Your task to perform on an android device: find snoozed emails in the gmail app Image 0: 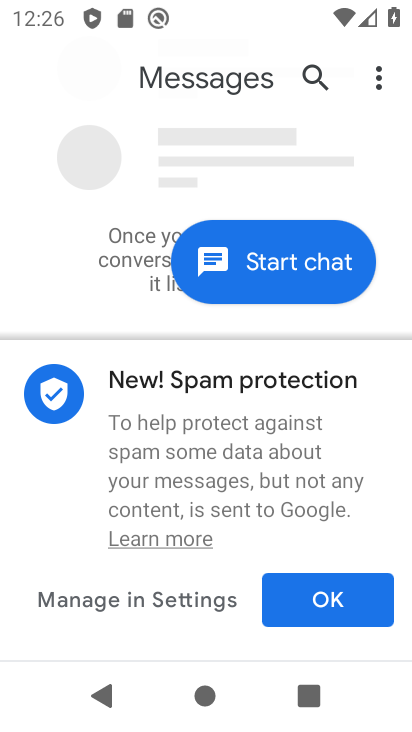
Step 0: press home button
Your task to perform on an android device: find snoozed emails in the gmail app Image 1: 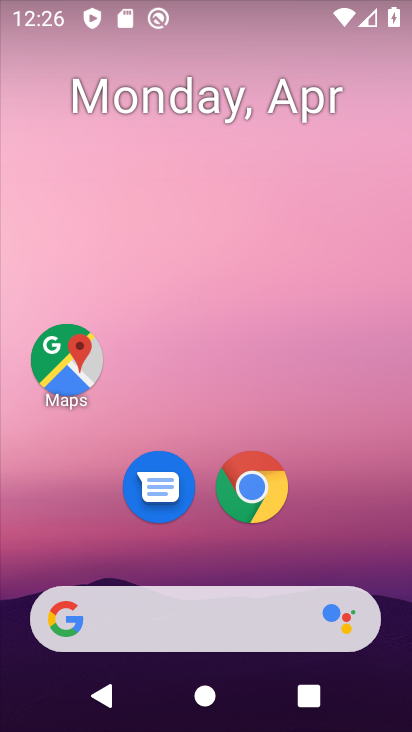
Step 1: drag from (395, 627) to (272, 89)
Your task to perform on an android device: find snoozed emails in the gmail app Image 2: 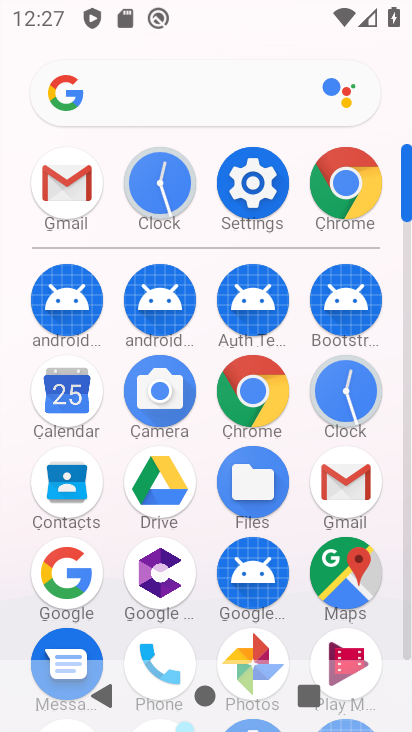
Step 2: click (340, 475)
Your task to perform on an android device: find snoozed emails in the gmail app Image 3: 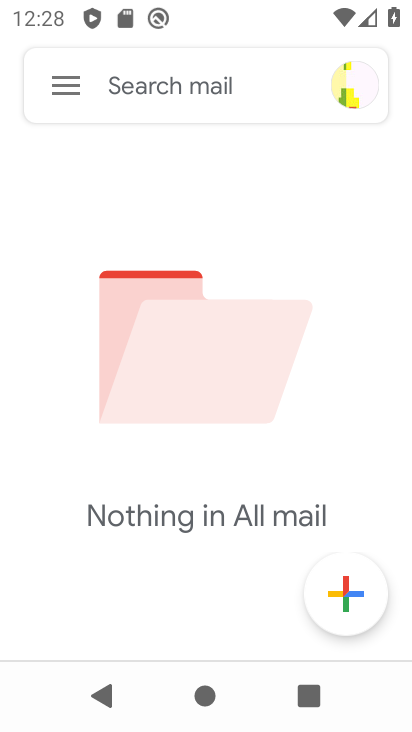
Step 3: click (52, 82)
Your task to perform on an android device: find snoozed emails in the gmail app Image 4: 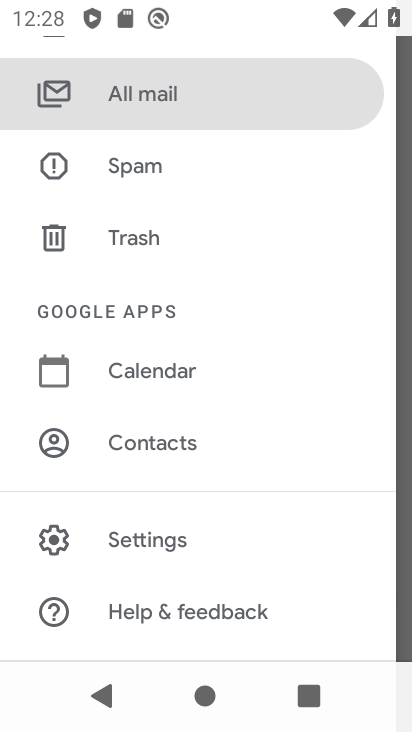
Step 4: drag from (185, 119) to (155, 596)
Your task to perform on an android device: find snoozed emails in the gmail app Image 5: 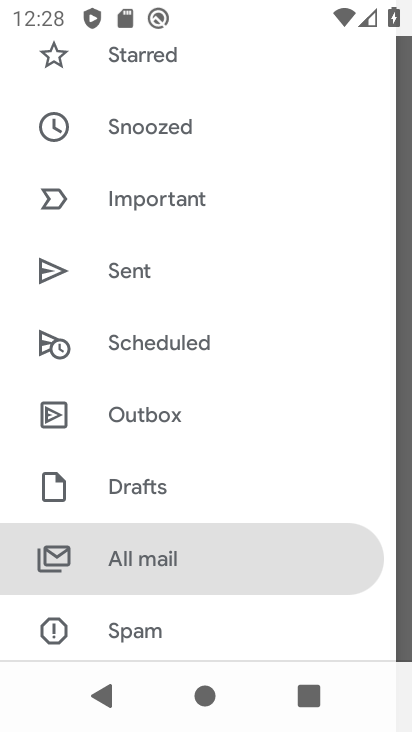
Step 5: click (196, 132)
Your task to perform on an android device: find snoozed emails in the gmail app Image 6: 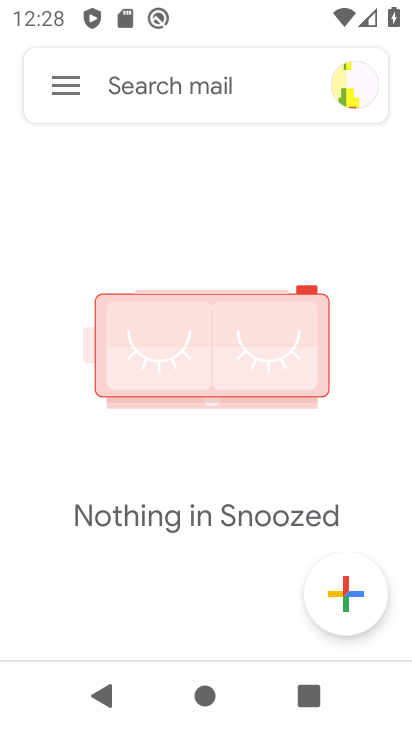
Step 6: task complete